Your task to perform on an android device: Go to Yahoo.com Image 0: 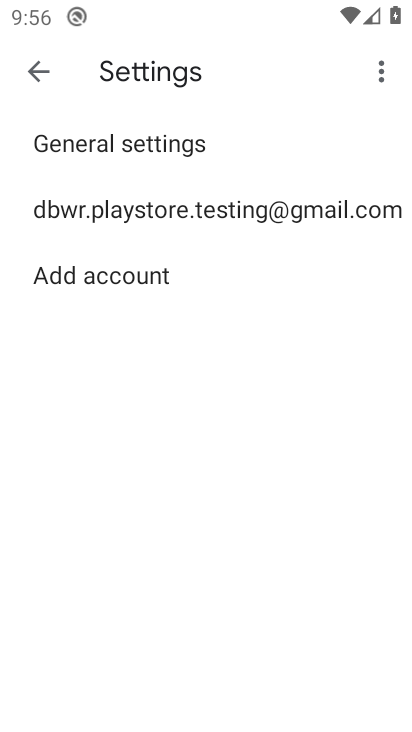
Step 0: press back button
Your task to perform on an android device: Go to Yahoo.com Image 1: 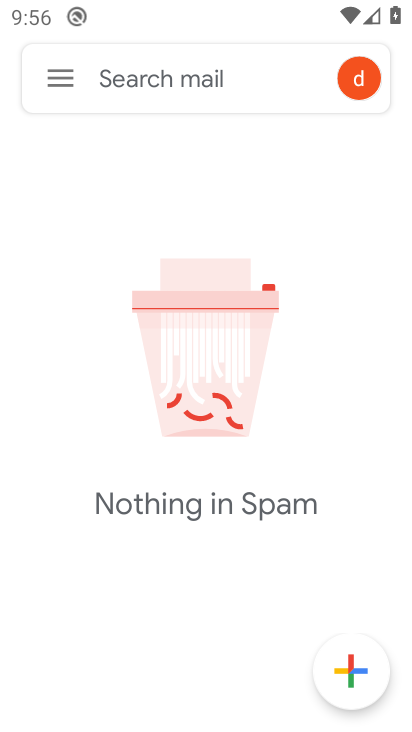
Step 1: press back button
Your task to perform on an android device: Go to Yahoo.com Image 2: 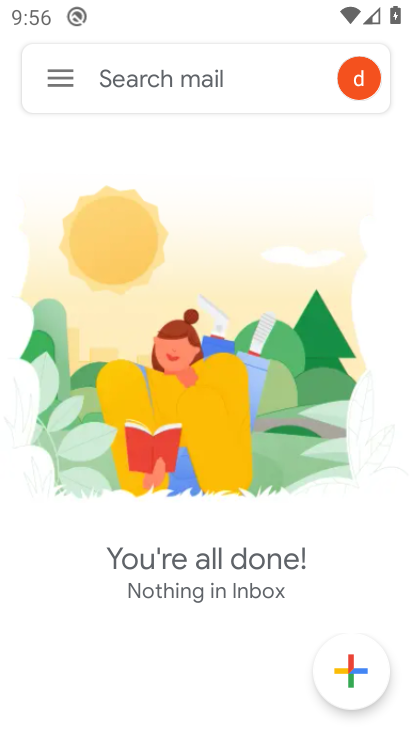
Step 2: press back button
Your task to perform on an android device: Go to Yahoo.com Image 3: 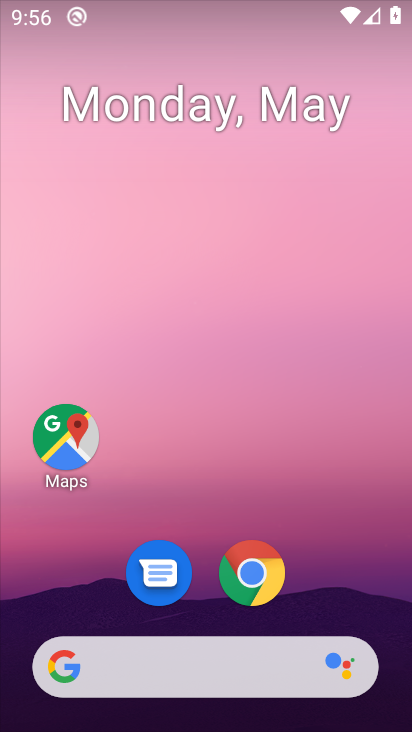
Step 3: drag from (248, 419) to (279, 93)
Your task to perform on an android device: Go to Yahoo.com Image 4: 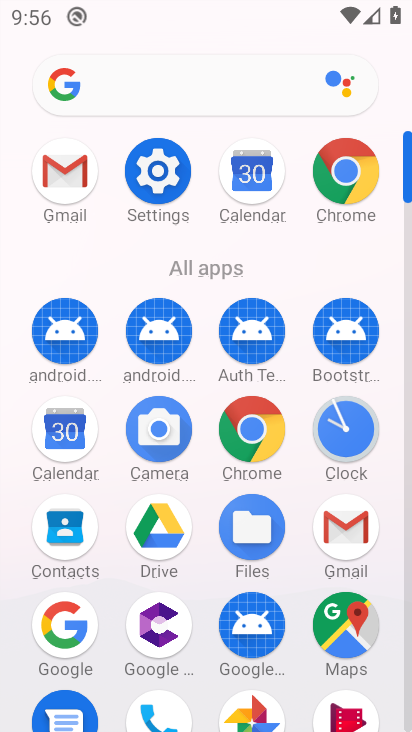
Step 4: click (343, 176)
Your task to perform on an android device: Go to Yahoo.com Image 5: 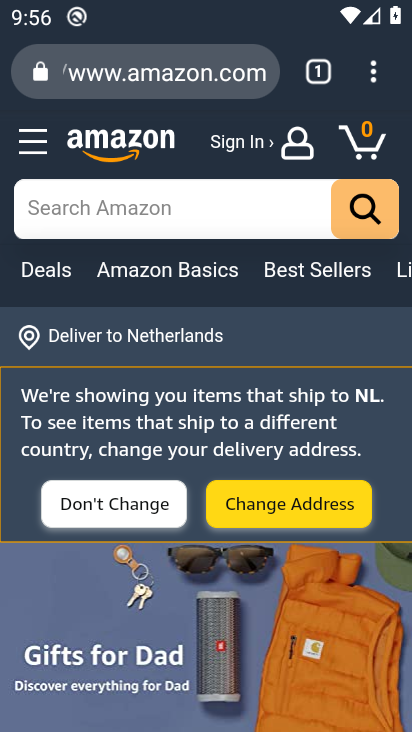
Step 5: click (321, 75)
Your task to perform on an android device: Go to Yahoo.com Image 6: 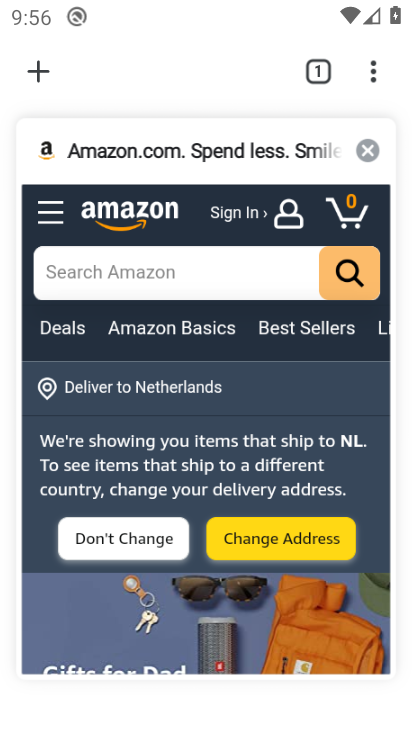
Step 6: click (36, 64)
Your task to perform on an android device: Go to Yahoo.com Image 7: 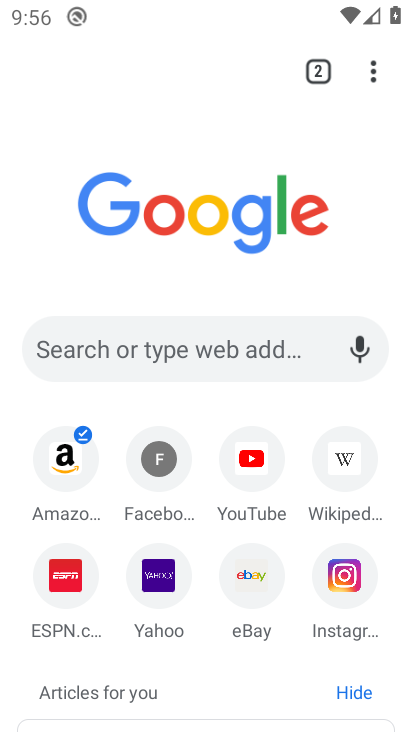
Step 7: click (172, 584)
Your task to perform on an android device: Go to Yahoo.com Image 8: 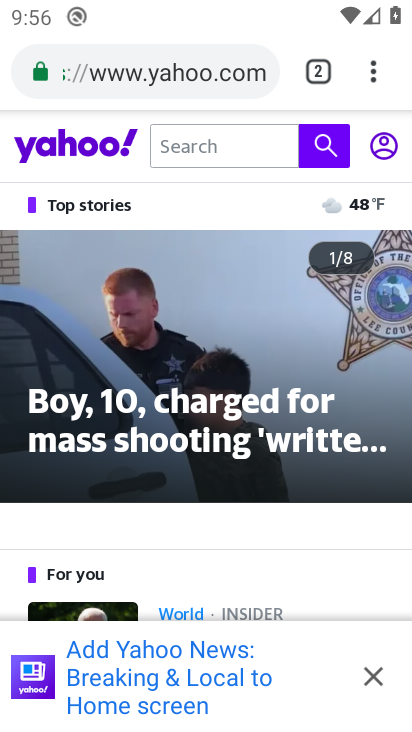
Step 8: task complete